Your task to perform on an android device: turn on the 24-hour format for clock Image 0: 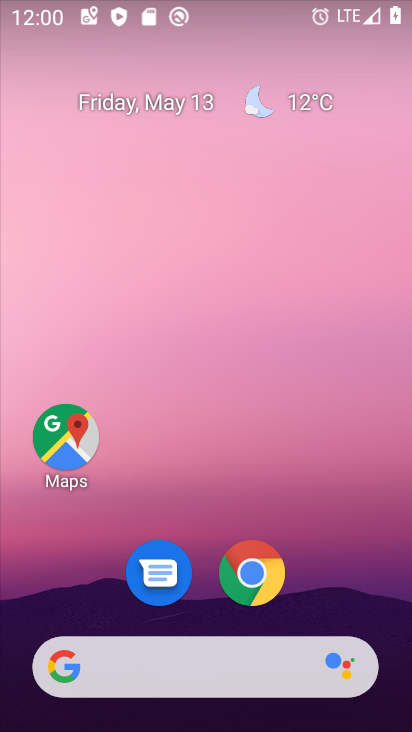
Step 0: drag from (223, 715) to (271, 64)
Your task to perform on an android device: turn on the 24-hour format for clock Image 1: 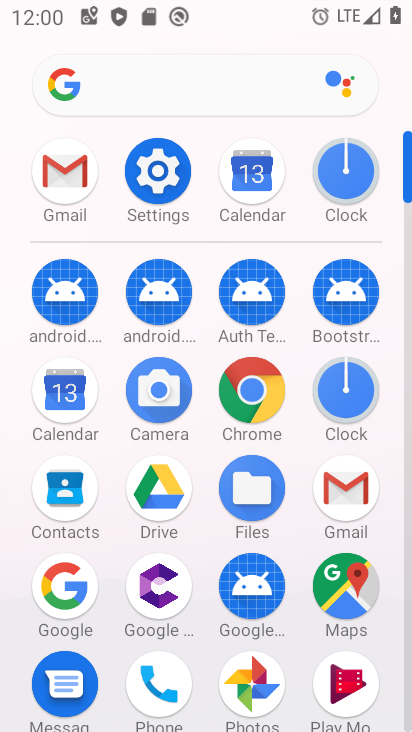
Step 1: click (175, 173)
Your task to perform on an android device: turn on the 24-hour format for clock Image 2: 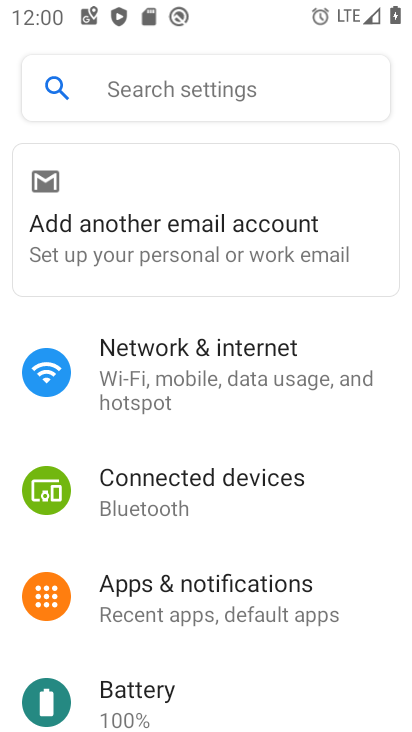
Step 2: press home button
Your task to perform on an android device: turn on the 24-hour format for clock Image 3: 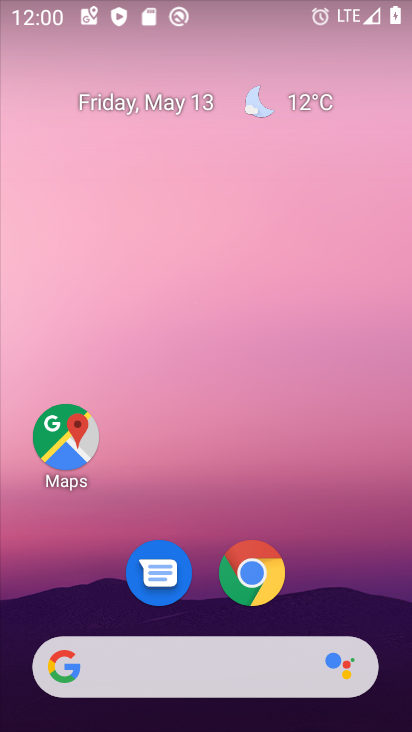
Step 3: drag from (219, 711) to (319, 119)
Your task to perform on an android device: turn on the 24-hour format for clock Image 4: 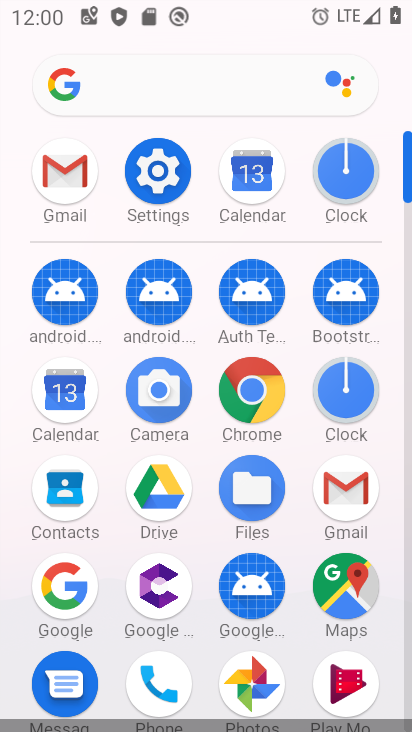
Step 4: click (348, 385)
Your task to perform on an android device: turn on the 24-hour format for clock Image 5: 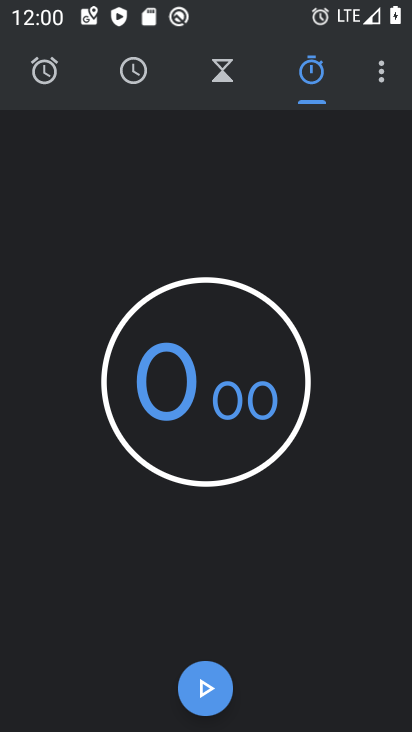
Step 5: click (380, 69)
Your task to perform on an android device: turn on the 24-hour format for clock Image 6: 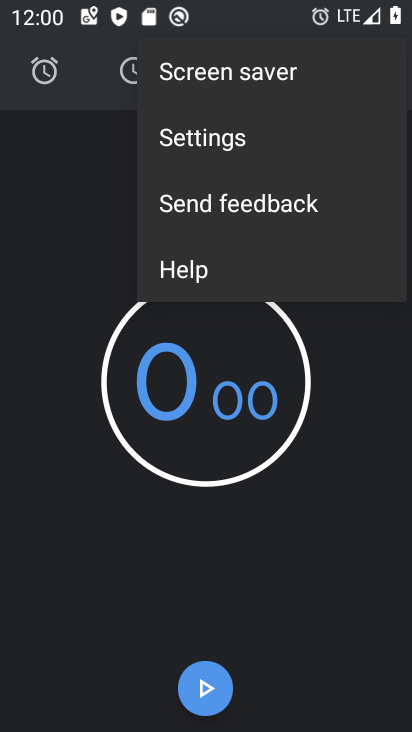
Step 6: click (252, 140)
Your task to perform on an android device: turn on the 24-hour format for clock Image 7: 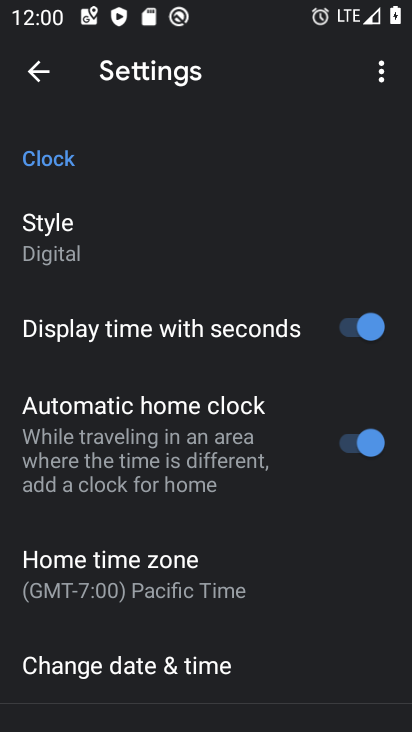
Step 7: drag from (307, 613) to (277, 193)
Your task to perform on an android device: turn on the 24-hour format for clock Image 8: 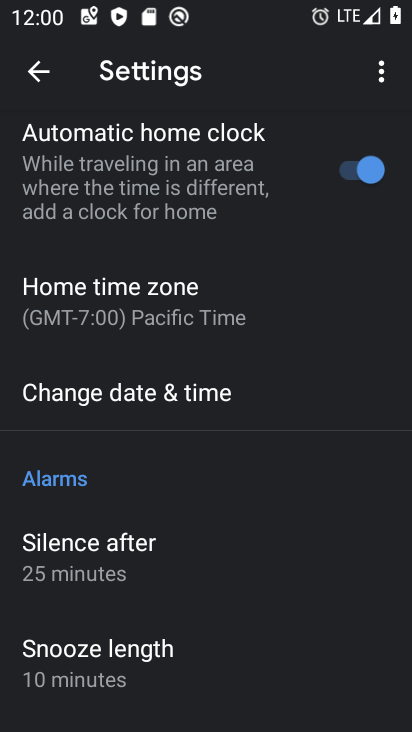
Step 8: click (256, 390)
Your task to perform on an android device: turn on the 24-hour format for clock Image 9: 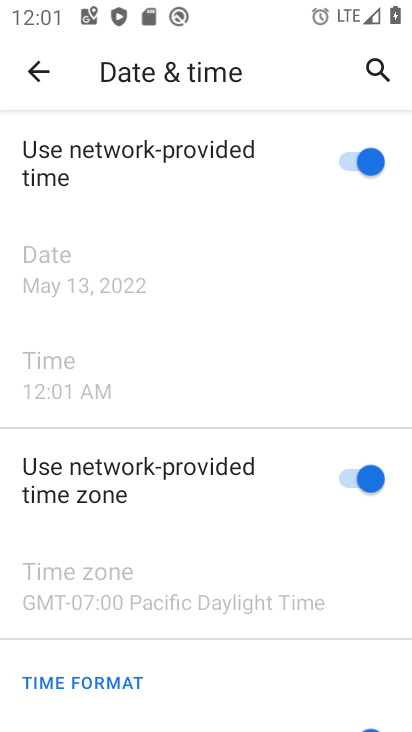
Step 9: drag from (188, 650) to (228, 205)
Your task to perform on an android device: turn on the 24-hour format for clock Image 10: 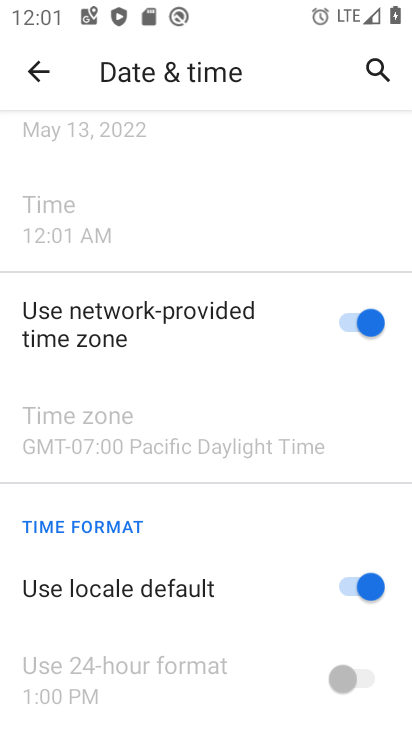
Step 10: click (364, 592)
Your task to perform on an android device: turn on the 24-hour format for clock Image 11: 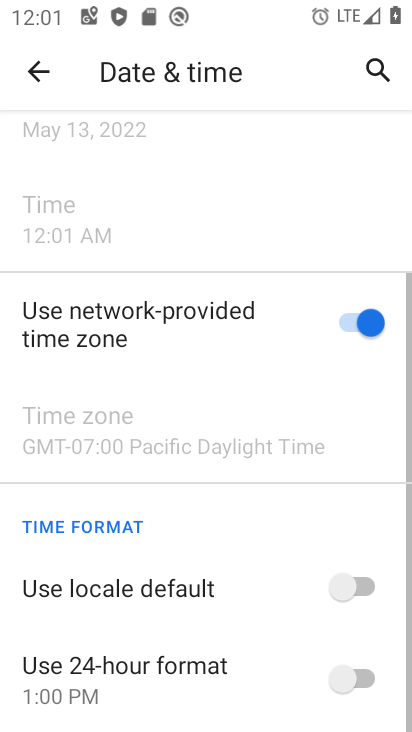
Step 11: click (350, 678)
Your task to perform on an android device: turn on the 24-hour format for clock Image 12: 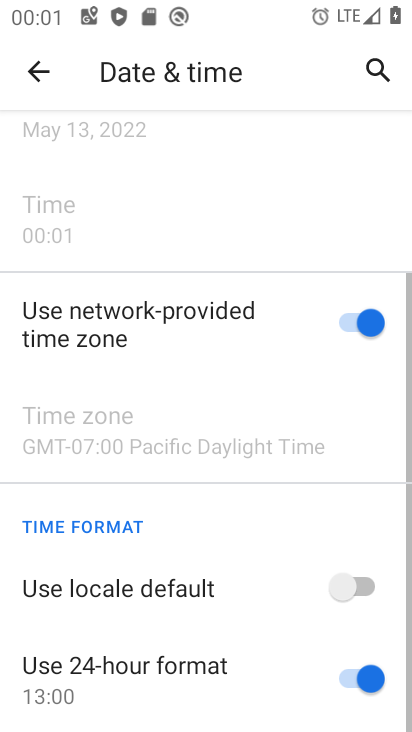
Step 12: task complete